Your task to perform on an android device: turn on notifications settings in the gmail app Image 0: 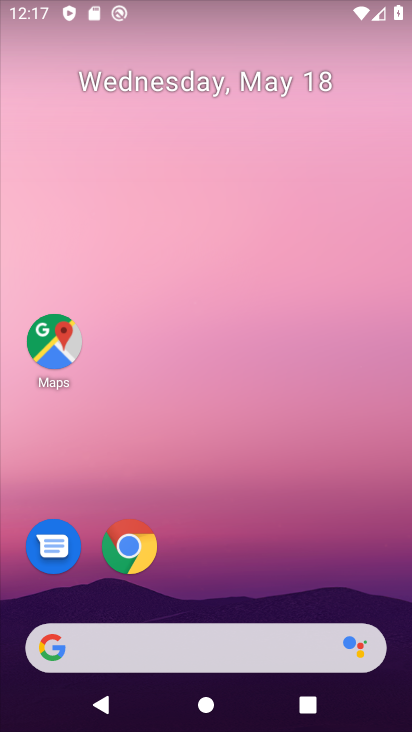
Step 0: drag from (319, 527) to (272, 131)
Your task to perform on an android device: turn on notifications settings in the gmail app Image 1: 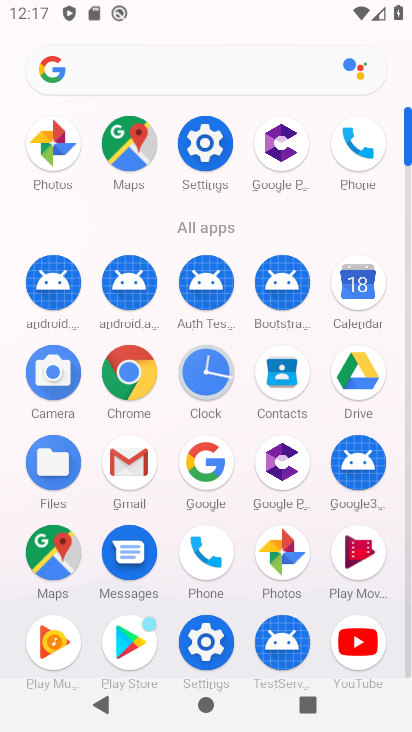
Step 1: click (142, 455)
Your task to perform on an android device: turn on notifications settings in the gmail app Image 2: 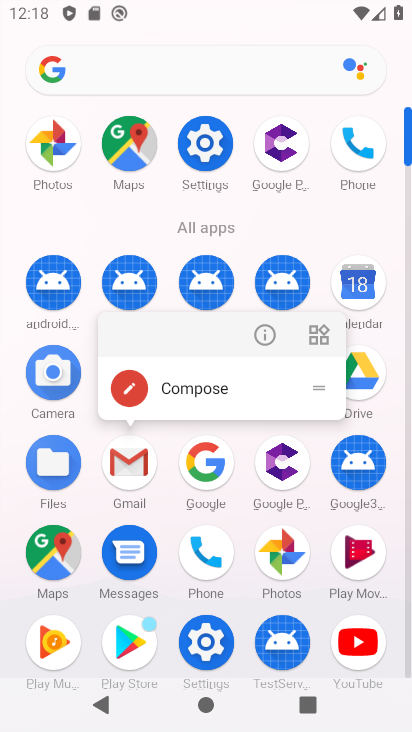
Step 2: click (263, 331)
Your task to perform on an android device: turn on notifications settings in the gmail app Image 3: 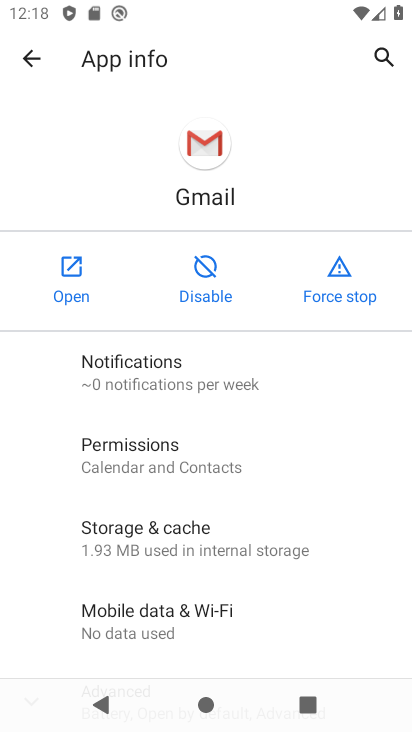
Step 3: click (241, 381)
Your task to perform on an android device: turn on notifications settings in the gmail app Image 4: 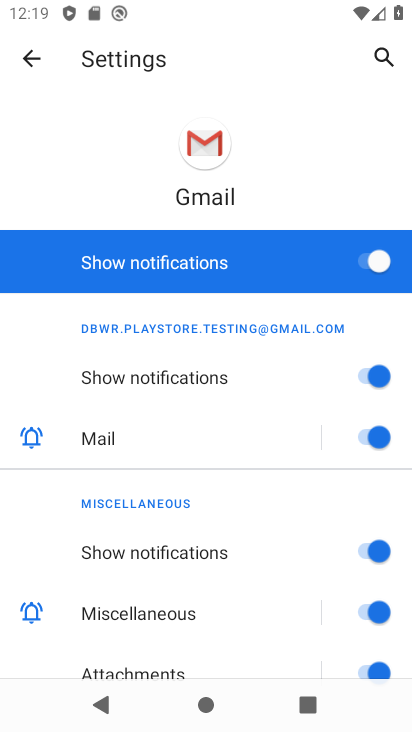
Step 4: task complete